Your task to perform on an android device: Go to wifi settings Image 0: 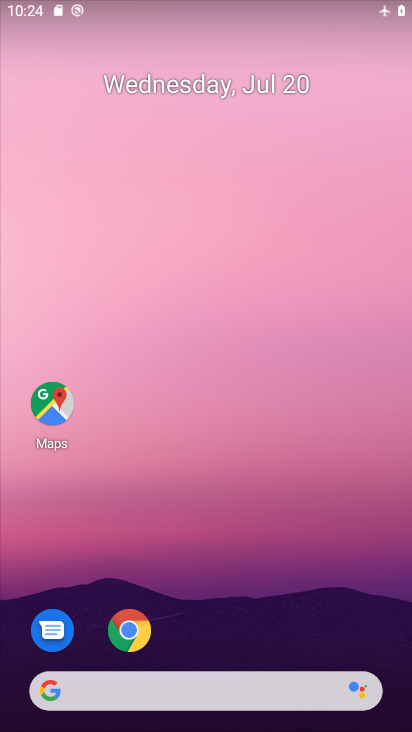
Step 0: drag from (250, 561) to (231, 32)
Your task to perform on an android device: Go to wifi settings Image 1: 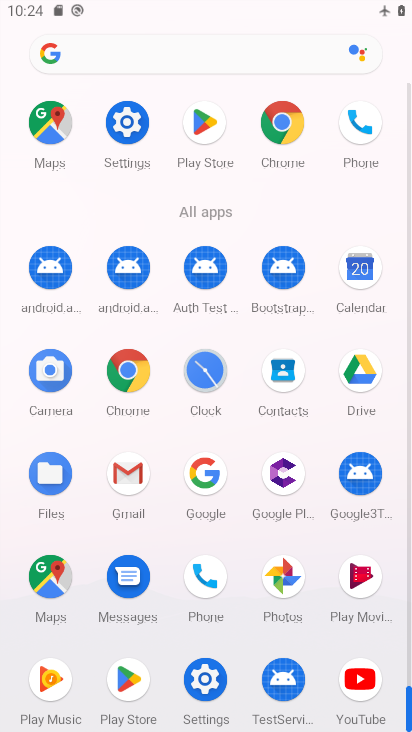
Step 1: click (127, 129)
Your task to perform on an android device: Go to wifi settings Image 2: 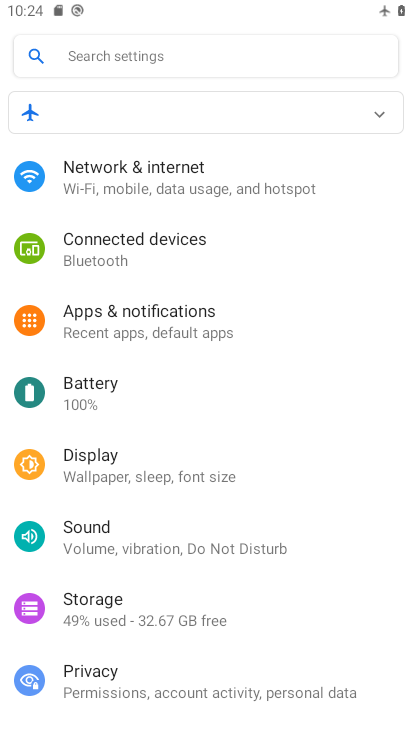
Step 2: click (135, 183)
Your task to perform on an android device: Go to wifi settings Image 3: 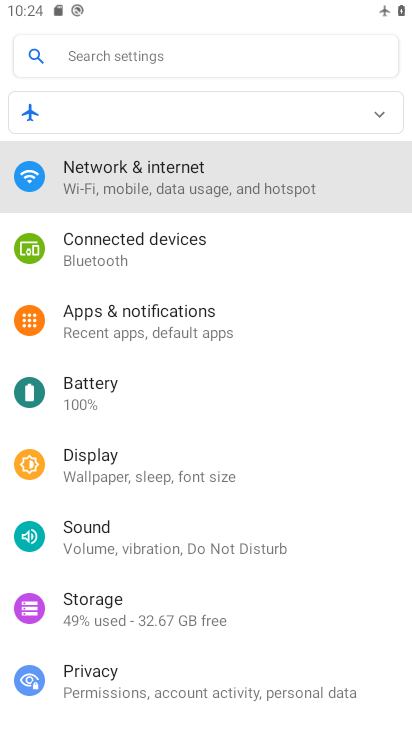
Step 3: click (142, 184)
Your task to perform on an android device: Go to wifi settings Image 4: 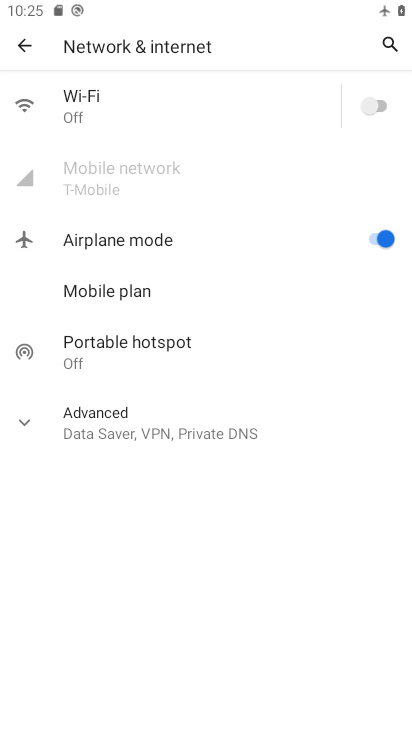
Step 4: click (377, 97)
Your task to perform on an android device: Go to wifi settings Image 5: 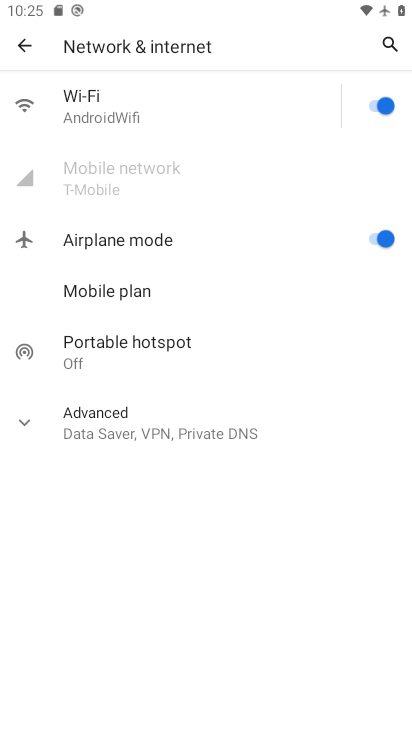
Step 5: click (388, 239)
Your task to perform on an android device: Go to wifi settings Image 6: 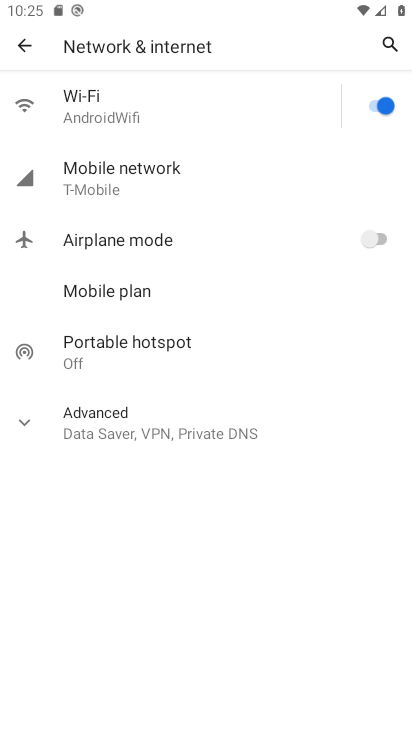
Step 6: task complete